Your task to perform on an android device: make emails show in primary in the gmail app Image 0: 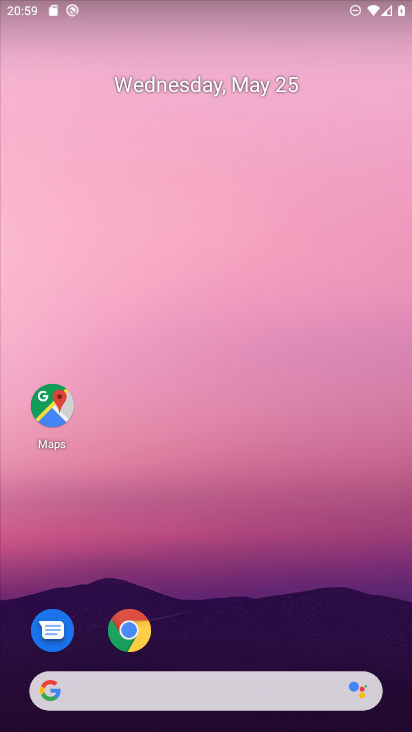
Step 0: drag from (273, 586) to (321, 73)
Your task to perform on an android device: make emails show in primary in the gmail app Image 1: 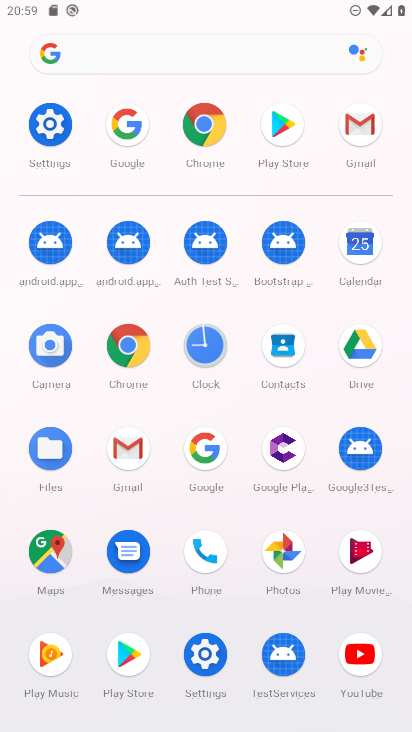
Step 1: click (127, 445)
Your task to perform on an android device: make emails show in primary in the gmail app Image 2: 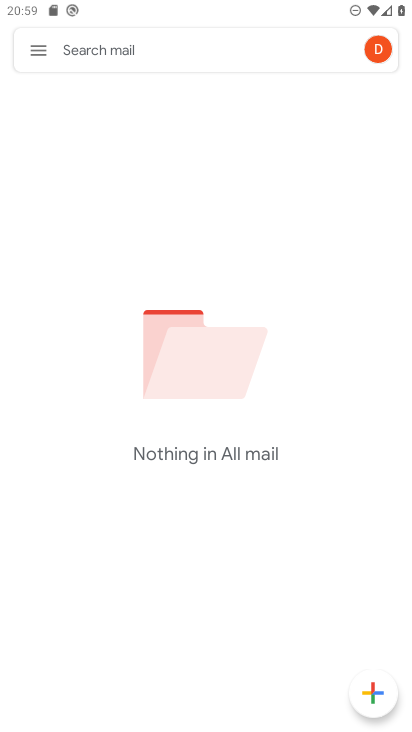
Step 2: click (33, 41)
Your task to perform on an android device: make emails show in primary in the gmail app Image 3: 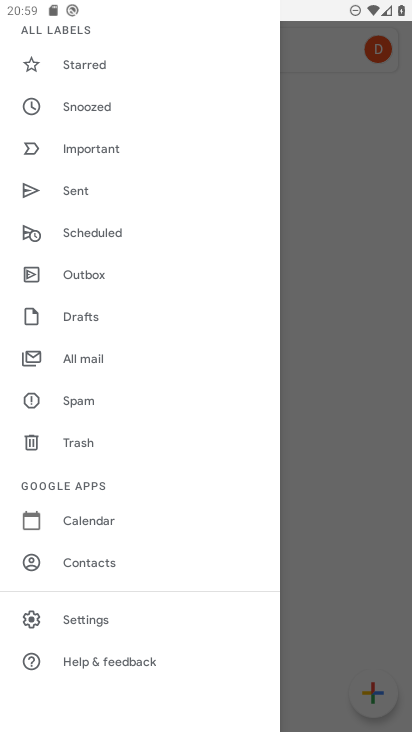
Step 3: click (108, 617)
Your task to perform on an android device: make emails show in primary in the gmail app Image 4: 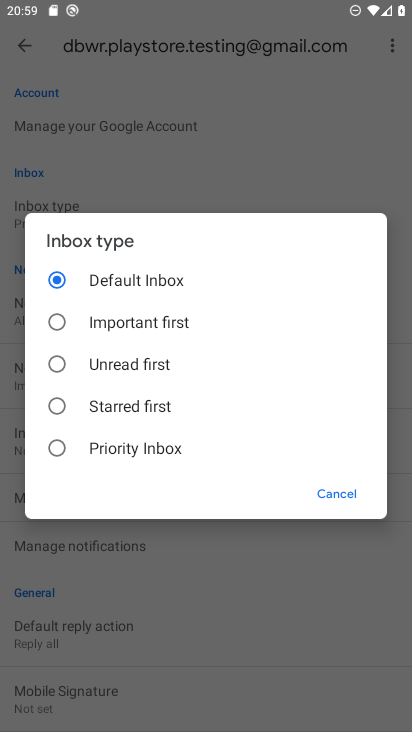
Step 4: click (330, 505)
Your task to perform on an android device: make emails show in primary in the gmail app Image 5: 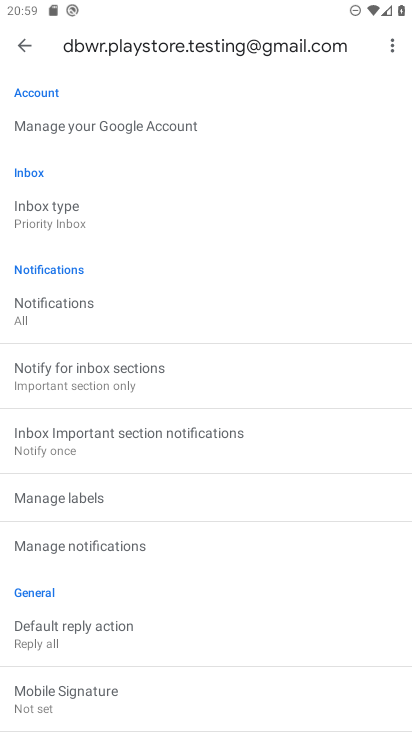
Step 5: drag from (70, 219) to (113, 372)
Your task to perform on an android device: make emails show in primary in the gmail app Image 6: 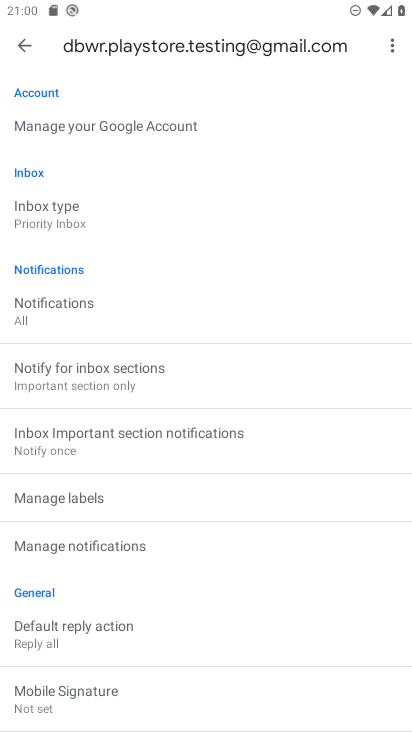
Step 6: click (46, 214)
Your task to perform on an android device: make emails show in primary in the gmail app Image 7: 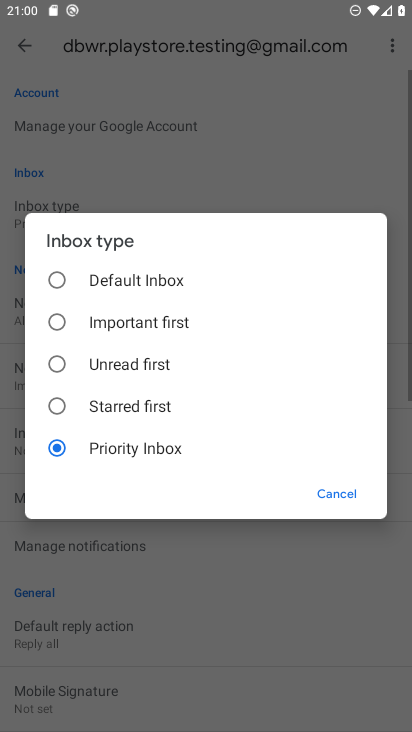
Step 7: click (90, 280)
Your task to perform on an android device: make emails show in primary in the gmail app Image 8: 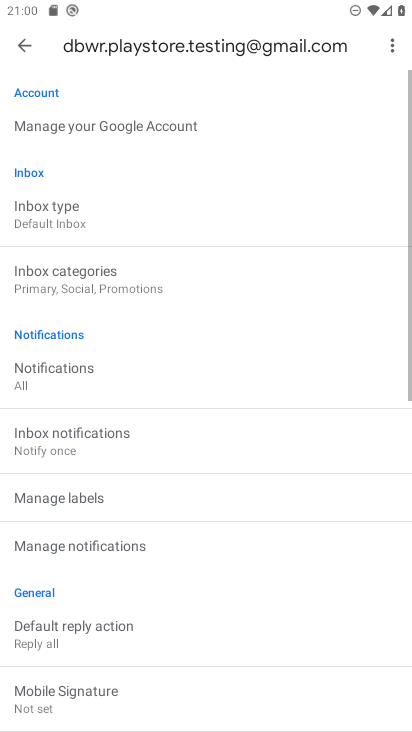
Step 8: click (54, 297)
Your task to perform on an android device: make emails show in primary in the gmail app Image 9: 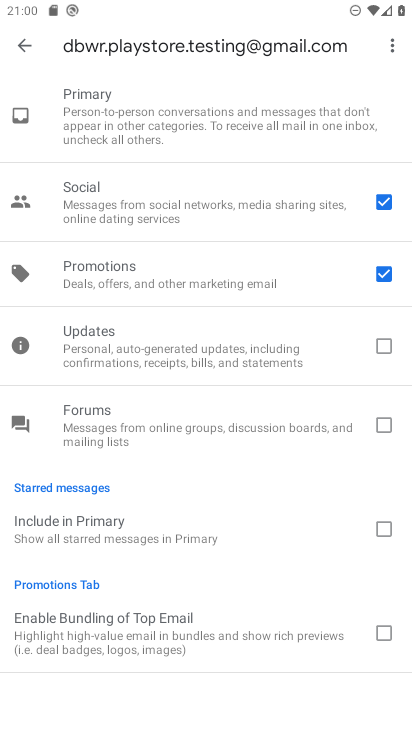
Step 9: click (381, 268)
Your task to perform on an android device: make emails show in primary in the gmail app Image 10: 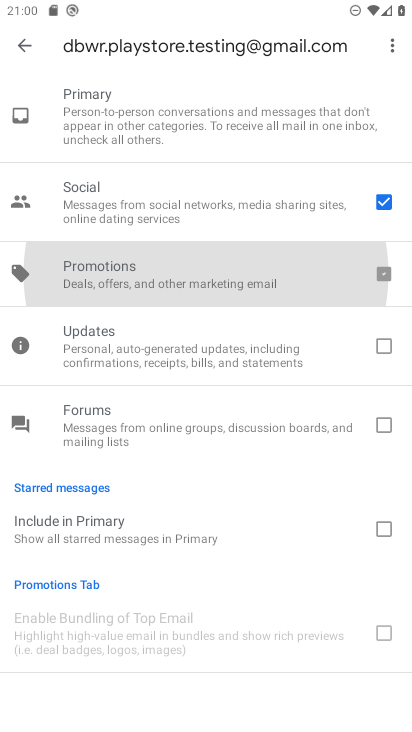
Step 10: click (385, 202)
Your task to perform on an android device: make emails show in primary in the gmail app Image 11: 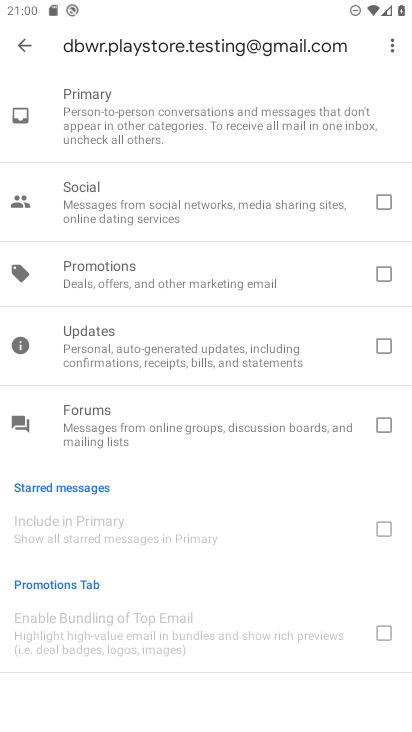
Step 11: task complete